Your task to perform on an android device: Open CNN.com Image 0: 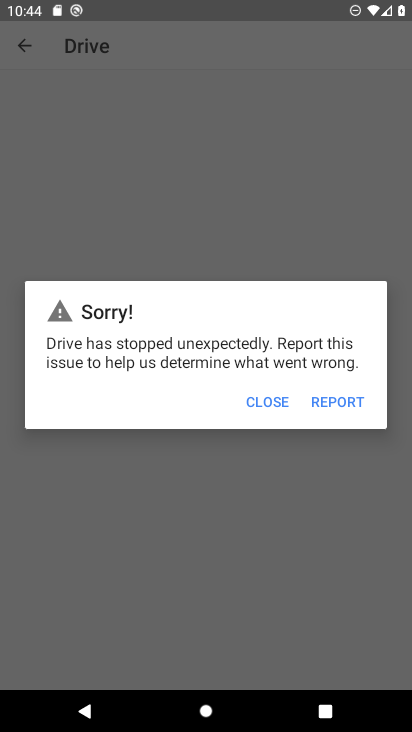
Step 0: press home button
Your task to perform on an android device: Open CNN.com Image 1: 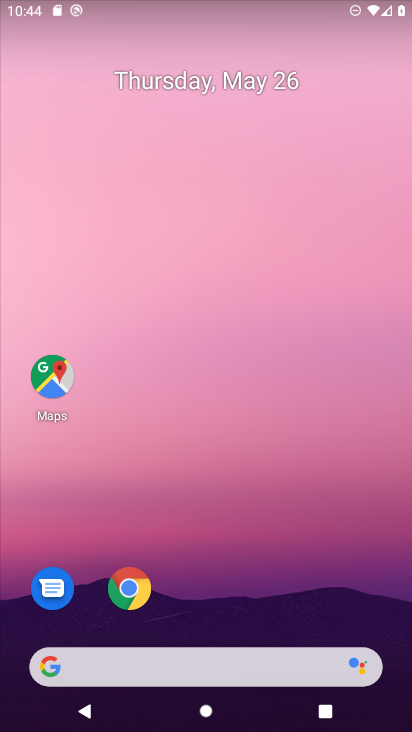
Step 1: click (130, 585)
Your task to perform on an android device: Open CNN.com Image 2: 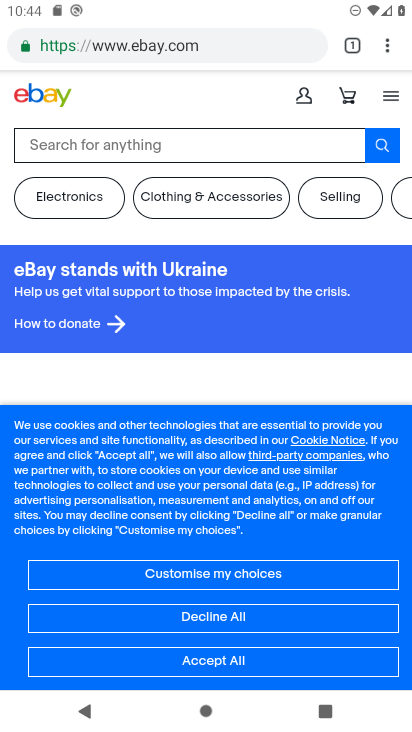
Step 2: click (220, 37)
Your task to perform on an android device: Open CNN.com Image 3: 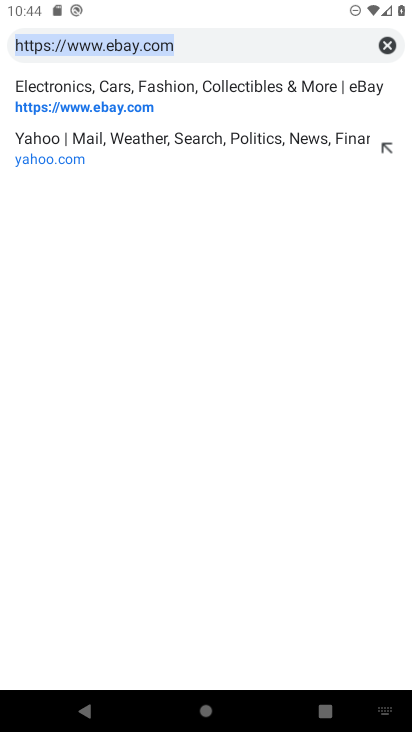
Step 3: click (386, 37)
Your task to perform on an android device: Open CNN.com Image 4: 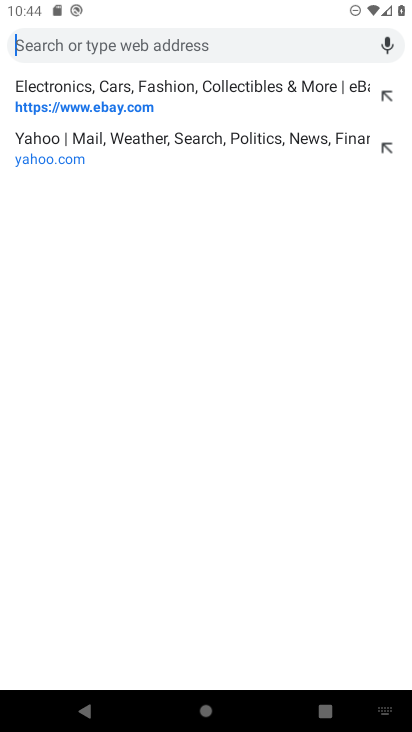
Step 4: type "cnn.com"
Your task to perform on an android device: Open CNN.com Image 5: 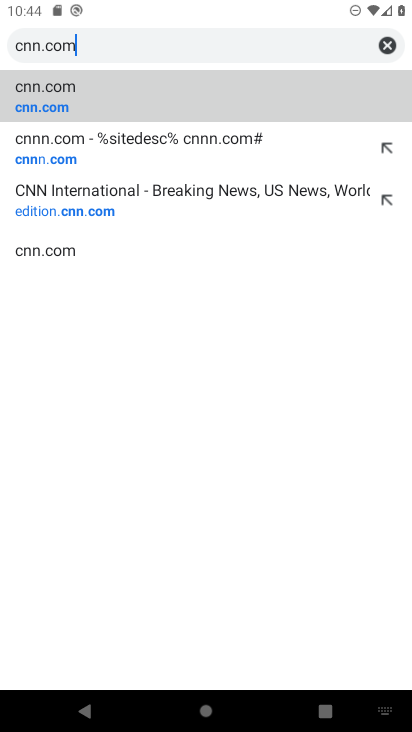
Step 5: click (52, 90)
Your task to perform on an android device: Open CNN.com Image 6: 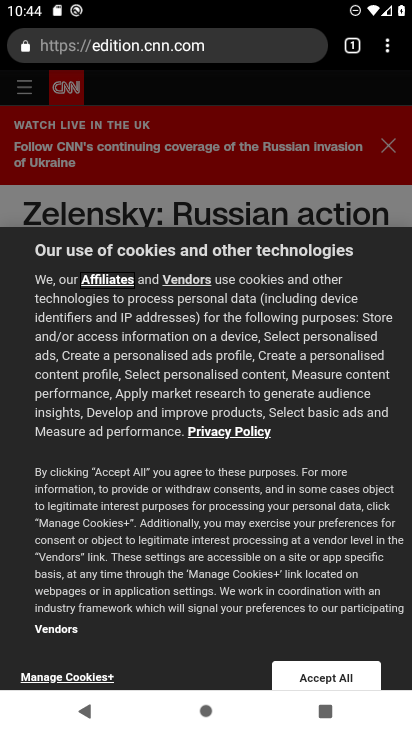
Step 6: drag from (273, 588) to (285, 293)
Your task to perform on an android device: Open CNN.com Image 7: 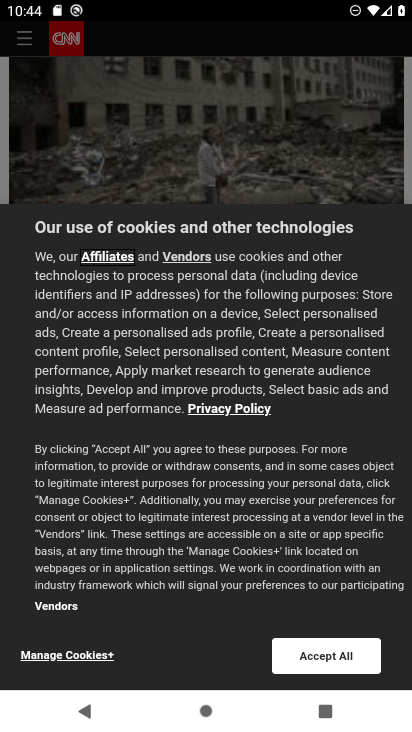
Step 7: click (319, 653)
Your task to perform on an android device: Open CNN.com Image 8: 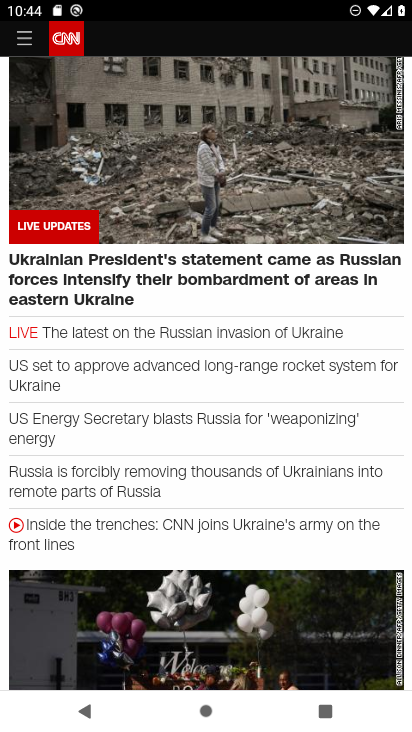
Step 8: task complete